Your task to perform on an android device: Empty the shopping cart on amazon. Search for usb-a on amazon, select the first entry, and add it to the cart. Image 0: 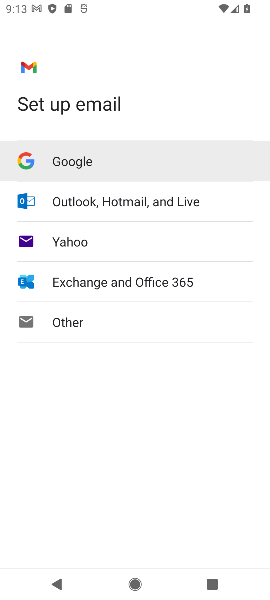
Step 0: press home button
Your task to perform on an android device: Empty the shopping cart on amazon. Search for usb-a on amazon, select the first entry, and add it to the cart. Image 1: 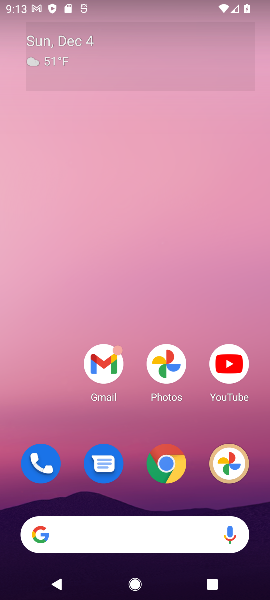
Step 1: click (129, 545)
Your task to perform on an android device: Empty the shopping cart on amazon. Search for usb-a on amazon, select the first entry, and add it to the cart. Image 2: 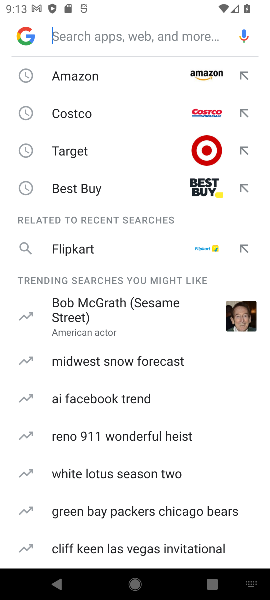
Step 2: click (118, 77)
Your task to perform on an android device: Empty the shopping cart on amazon. Search for usb-a on amazon, select the first entry, and add it to the cart. Image 3: 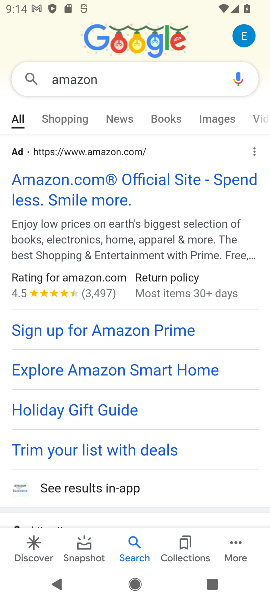
Step 3: click (140, 195)
Your task to perform on an android device: Empty the shopping cart on amazon. Search for usb-a on amazon, select the first entry, and add it to the cart. Image 4: 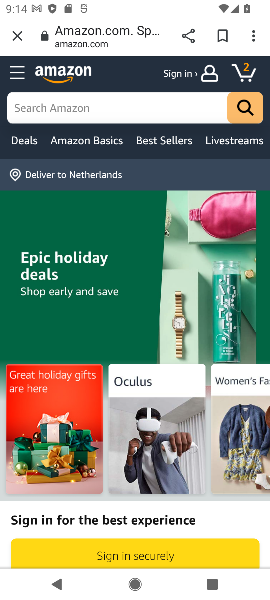
Step 4: click (133, 99)
Your task to perform on an android device: Empty the shopping cart on amazon. Search for usb-a on amazon, select the first entry, and add it to the cart. Image 5: 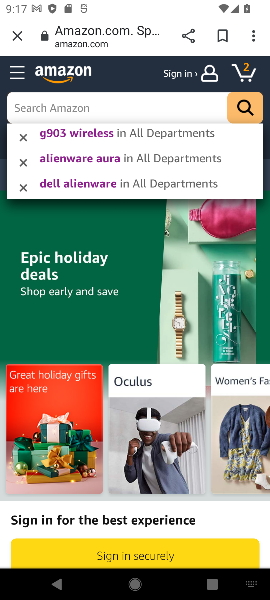
Step 5: task complete